Your task to perform on an android device: Search for Italian restaurants on Maps Image 0: 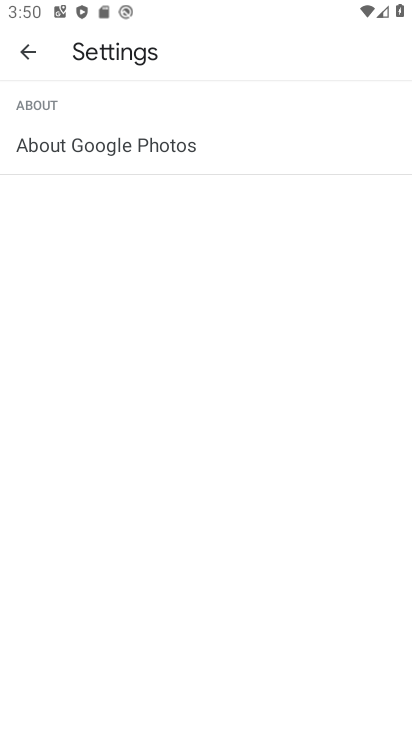
Step 0: press home button
Your task to perform on an android device: Search for Italian restaurants on Maps Image 1: 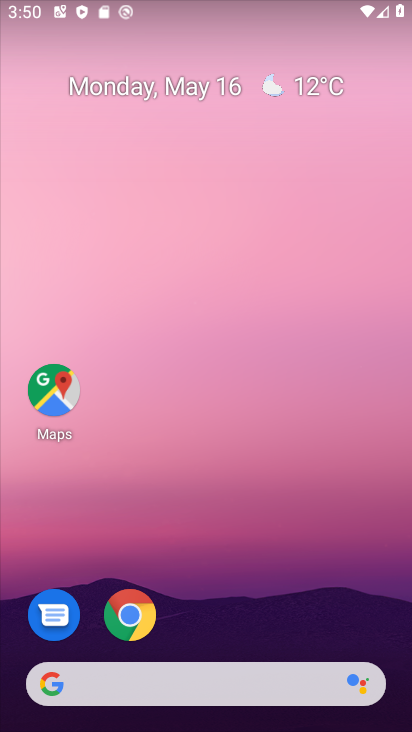
Step 1: drag from (218, 729) to (222, 225)
Your task to perform on an android device: Search for Italian restaurants on Maps Image 2: 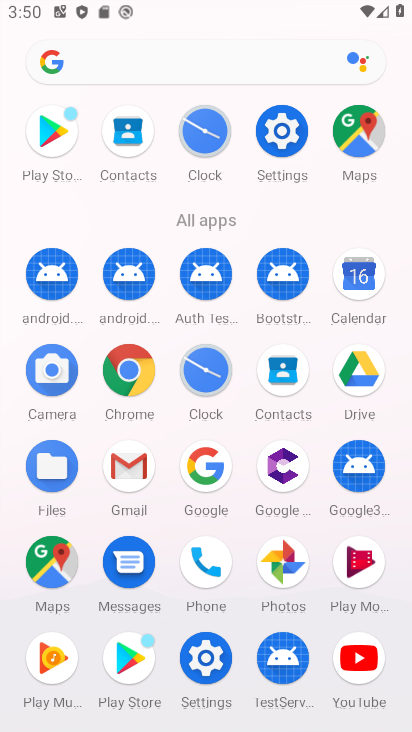
Step 2: click (364, 142)
Your task to perform on an android device: Search for Italian restaurants on Maps Image 3: 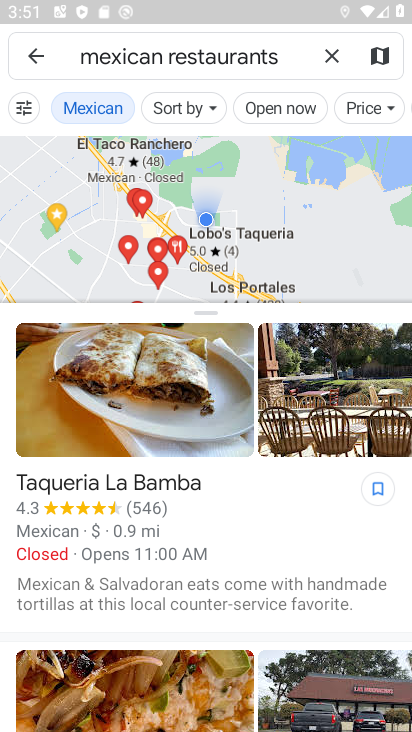
Step 3: click (328, 47)
Your task to perform on an android device: Search for Italian restaurants on Maps Image 4: 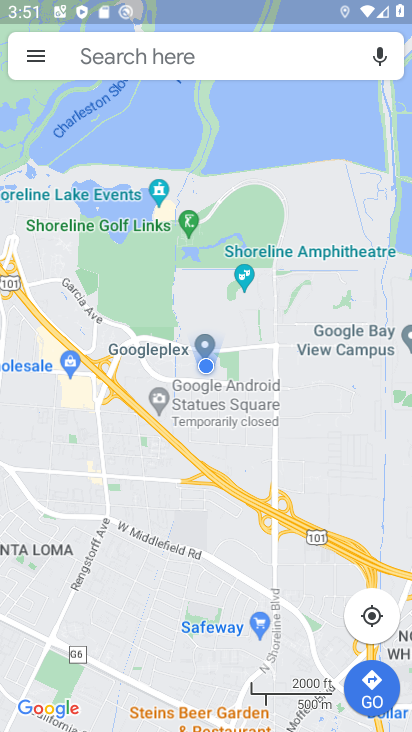
Step 4: click (199, 59)
Your task to perform on an android device: Search for Italian restaurants on Maps Image 5: 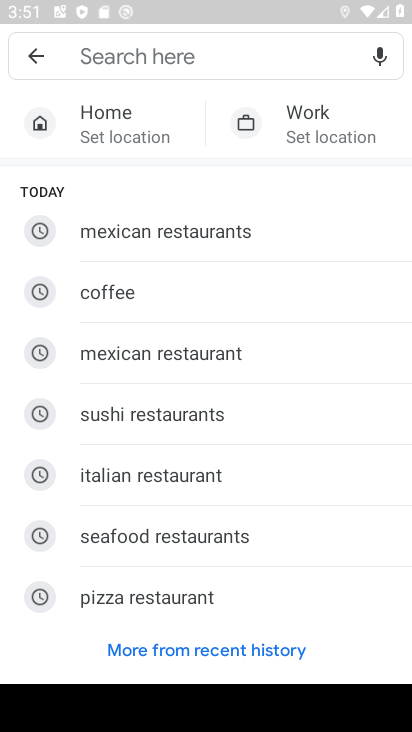
Step 5: type "italian restaurants"
Your task to perform on an android device: Search for Italian restaurants on Maps Image 6: 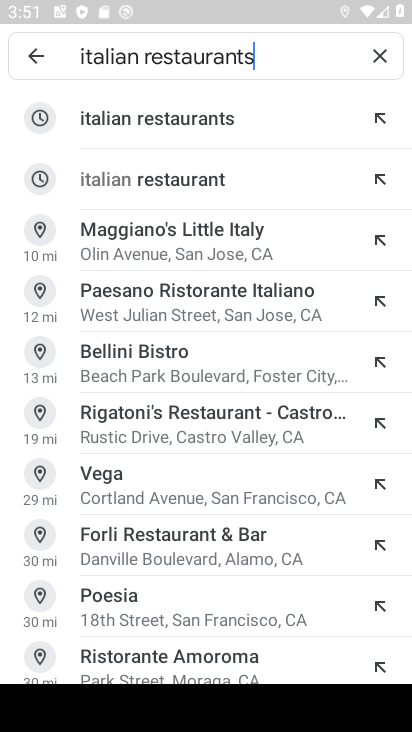
Step 6: click (106, 121)
Your task to perform on an android device: Search for Italian restaurants on Maps Image 7: 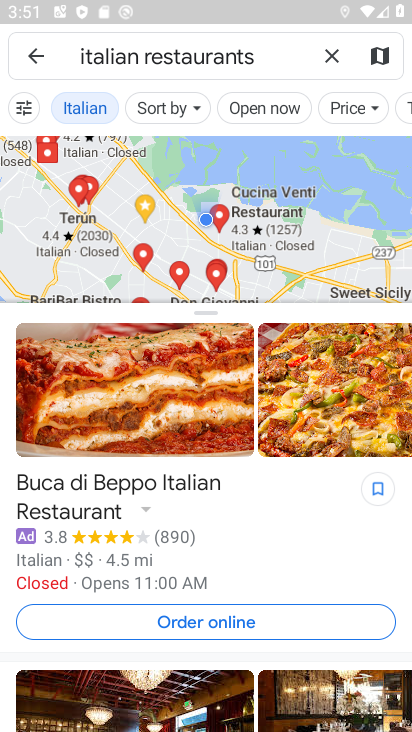
Step 7: task complete